Your task to perform on an android device: allow cookies in the chrome app Image 0: 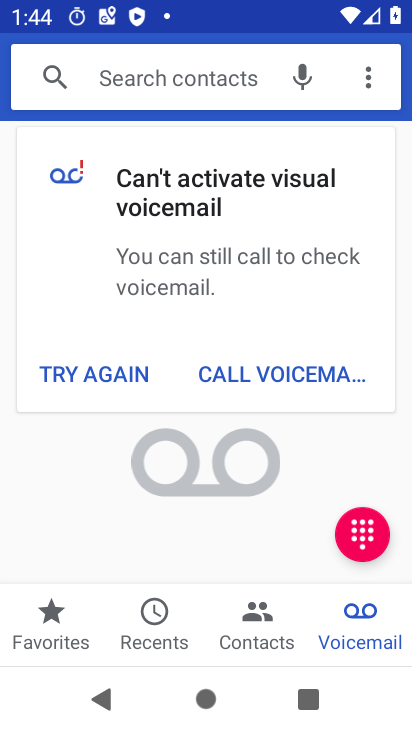
Step 0: press home button
Your task to perform on an android device: allow cookies in the chrome app Image 1: 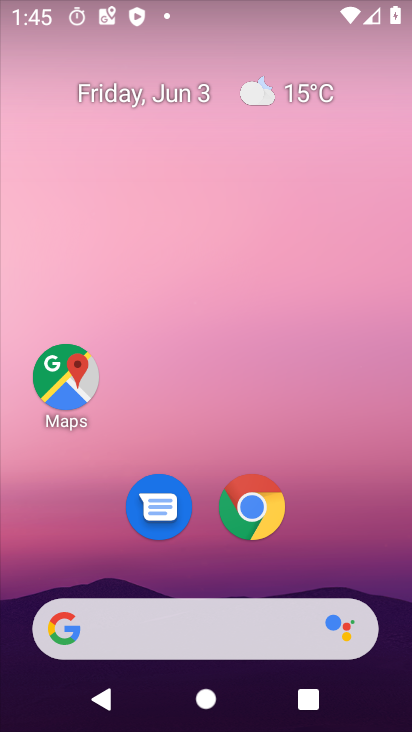
Step 1: drag from (392, 635) to (336, 34)
Your task to perform on an android device: allow cookies in the chrome app Image 2: 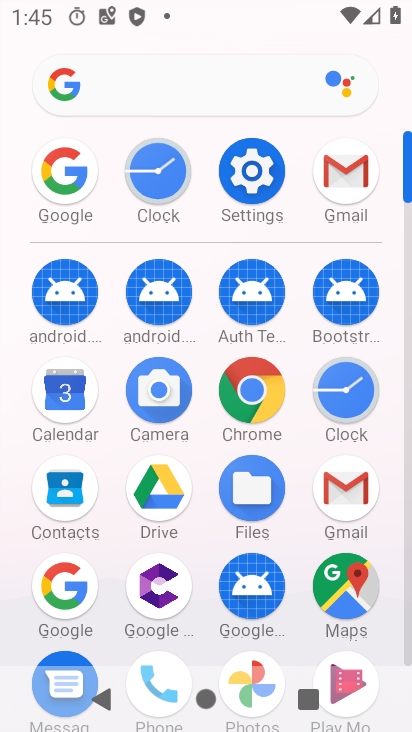
Step 2: click (257, 394)
Your task to perform on an android device: allow cookies in the chrome app Image 3: 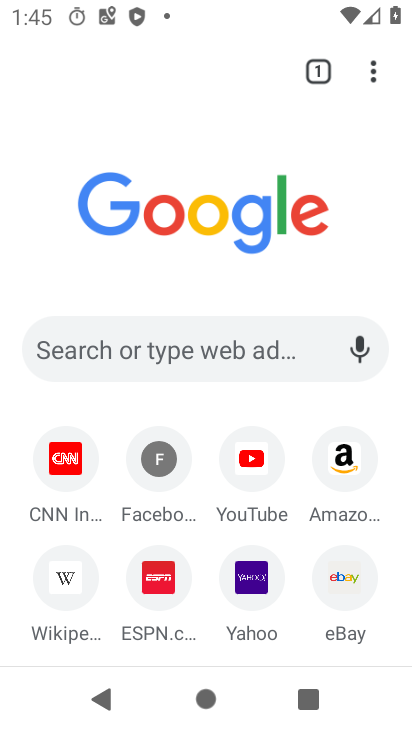
Step 3: click (374, 68)
Your task to perform on an android device: allow cookies in the chrome app Image 4: 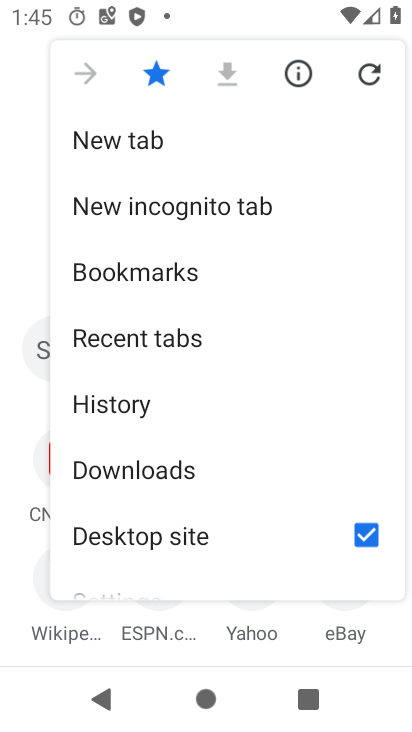
Step 4: click (119, 407)
Your task to perform on an android device: allow cookies in the chrome app Image 5: 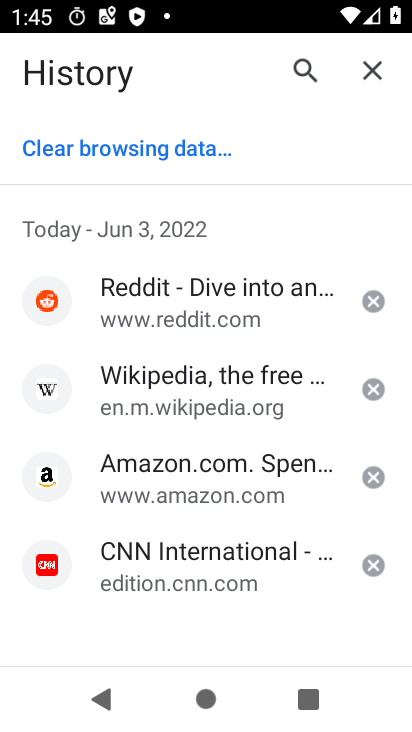
Step 5: click (123, 171)
Your task to perform on an android device: allow cookies in the chrome app Image 6: 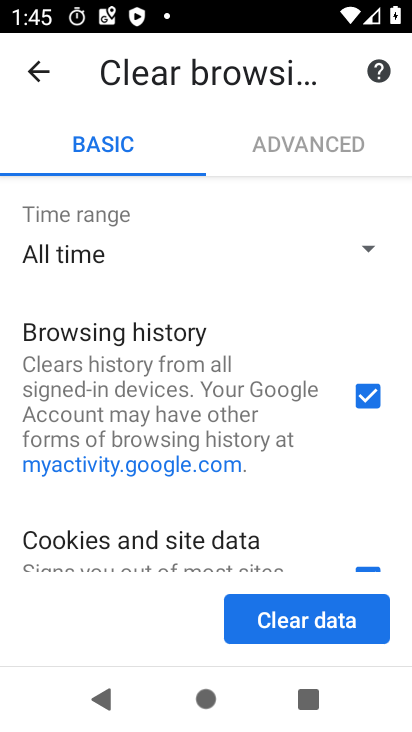
Step 6: task complete